Your task to perform on an android device: check google app version Image 0: 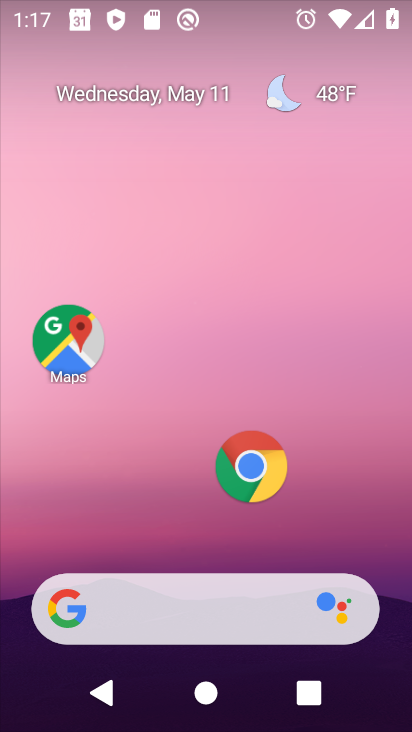
Step 0: drag from (177, 560) to (249, 9)
Your task to perform on an android device: check google app version Image 1: 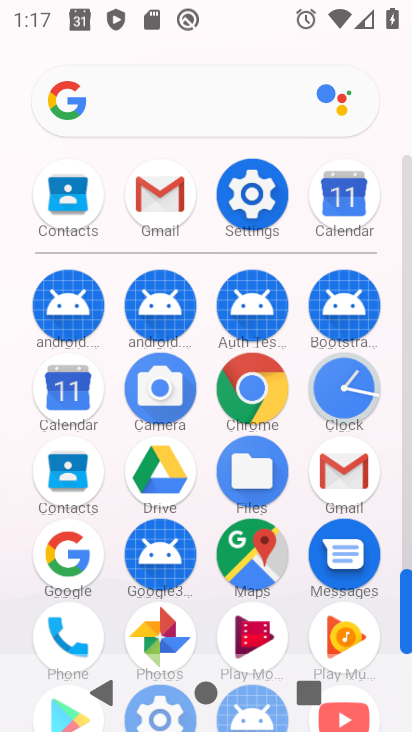
Step 1: click (61, 568)
Your task to perform on an android device: check google app version Image 2: 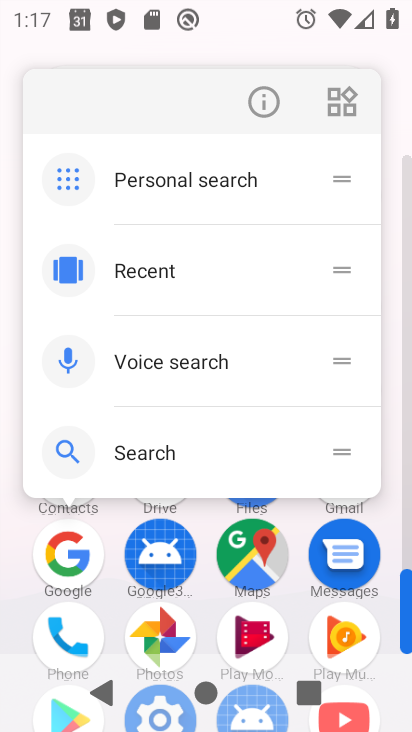
Step 2: click (262, 98)
Your task to perform on an android device: check google app version Image 3: 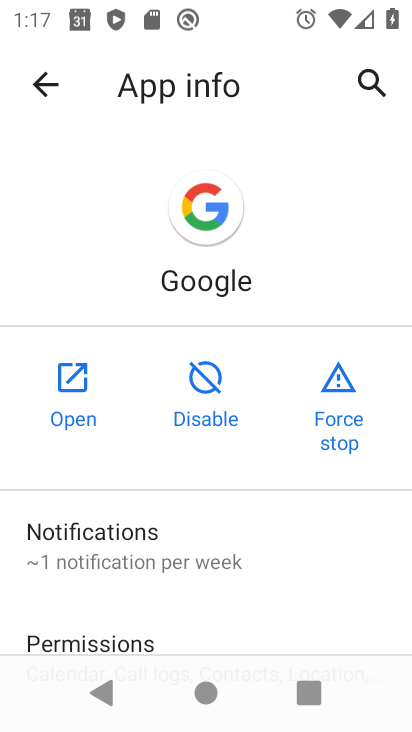
Step 3: drag from (149, 607) to (333, 111)
Your task to perform on an android device: check google app version Image 4: 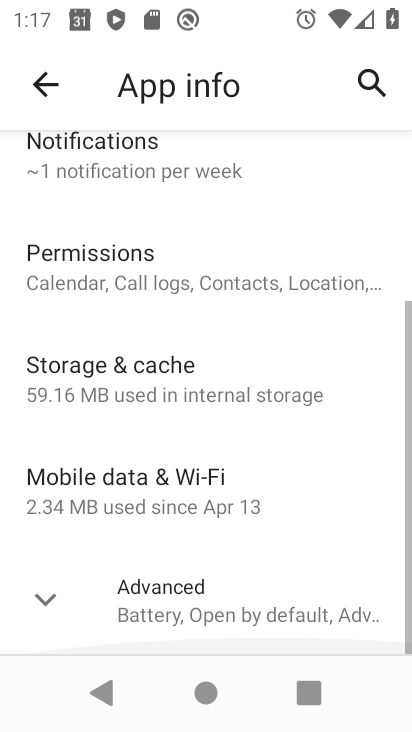
Step 4: drag from (257, 612) to (306, 132)
Your task to perform on an android device: check google app version Image 5: 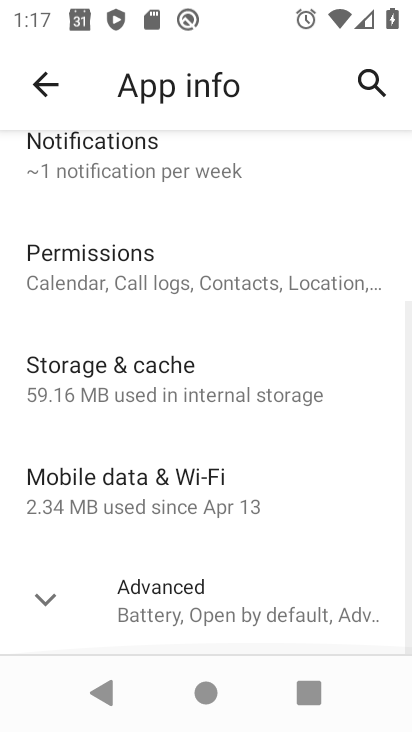
Step 5: click (186, 615)
Your task to perform on an android device: check google app version Image 6: 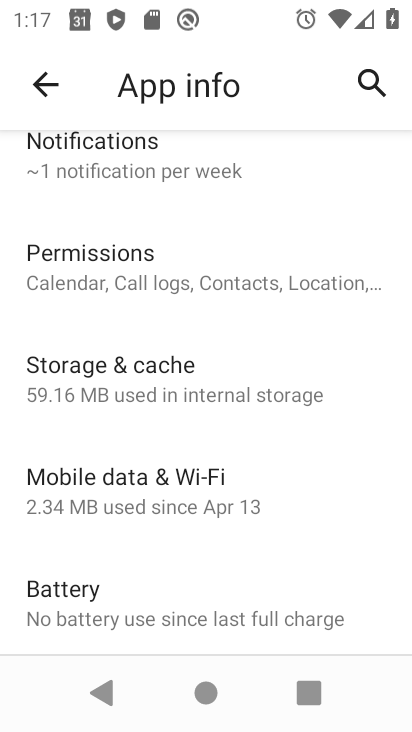
Step 6: task complete